Your task to perform on an android device: find photos in the google photos app Image 0: 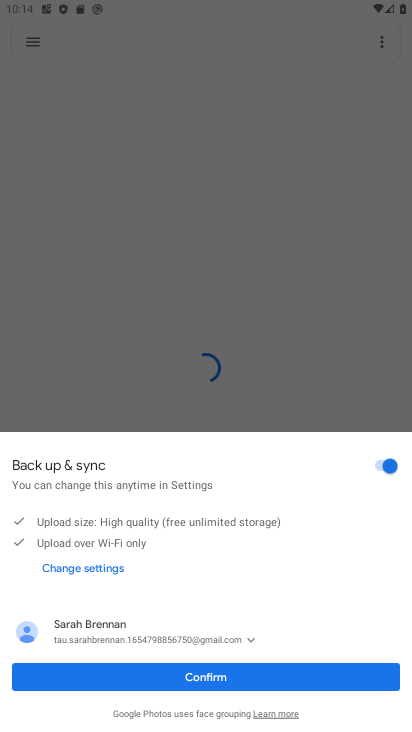
Step 0: click (198, 264)
Your task to perform on an android device: find photos in the google photos app Image 1: 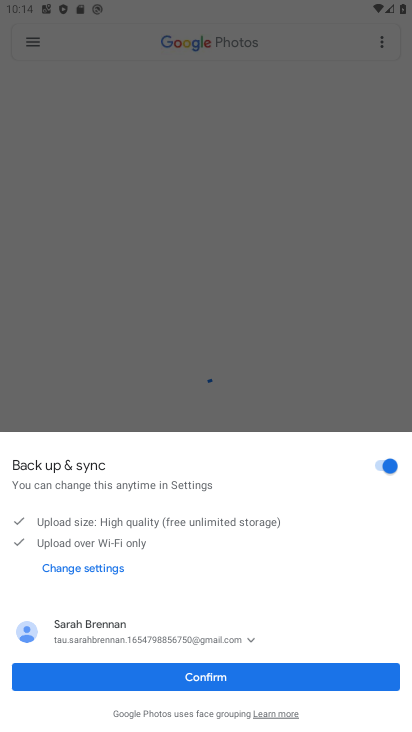
Step 1: click (200, 264)
Your task to perform on an android device: find photos in the google photos app Image 2: 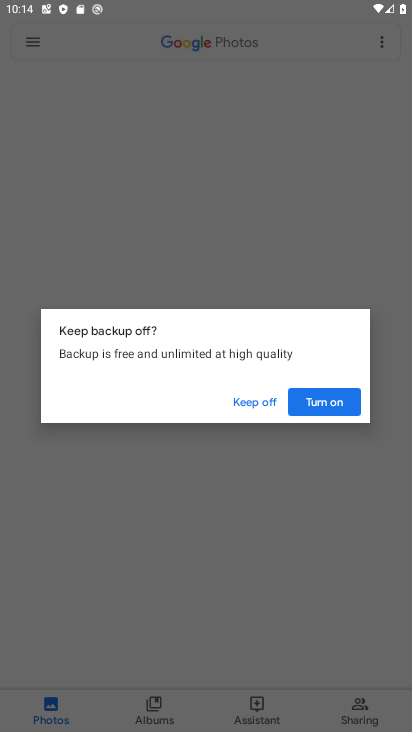
Step 2: click (198, 270)
Your task to perform on an android device: find photos in the google photos app Image 3: 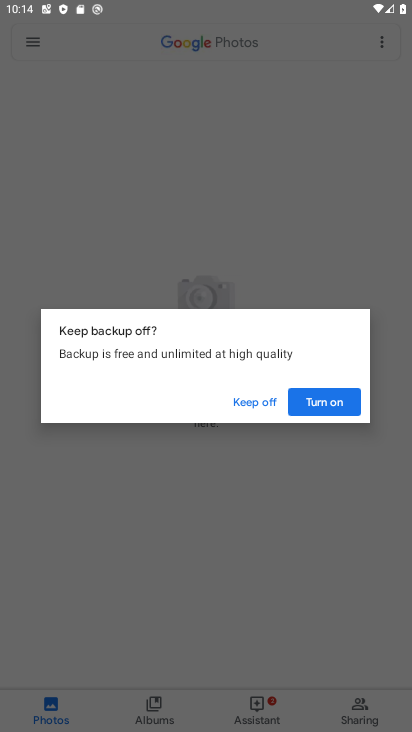
Step 3: click (330, 389)
Your task to perform on an android device: find photos in the google photos app Image 4: 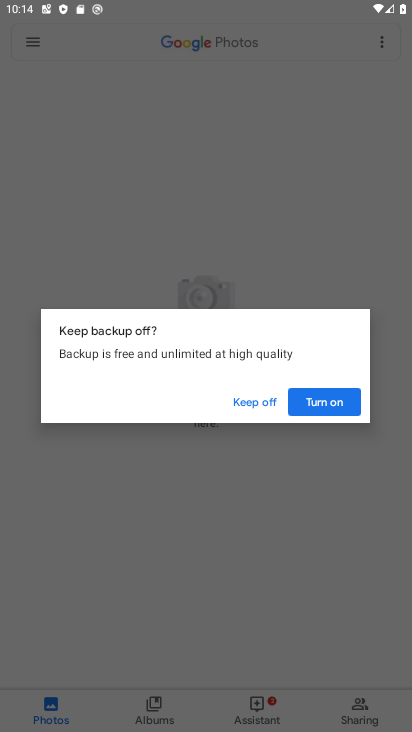
Step 4: press back button
Your task to perform on an android device: find photos in the google photos app Image 5: 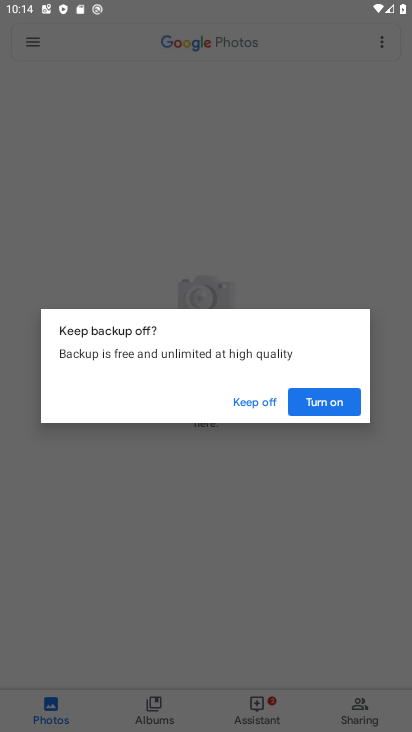
Step 5: drag from (112, 185) to (112, 72)
Your task to perform on an android device: find photos in the google photos app Image 6: 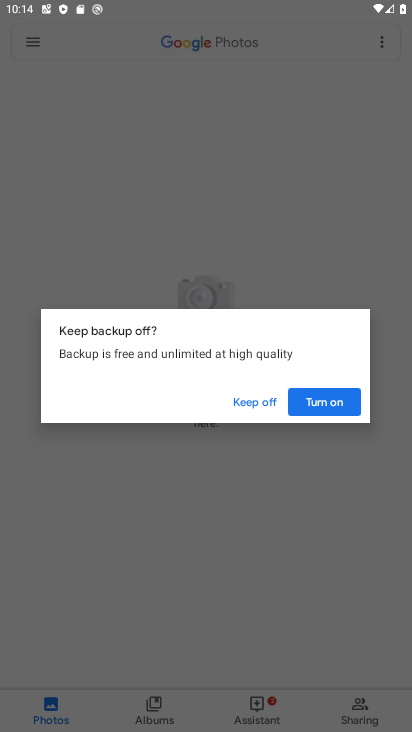
Step 6: click (319, 399)
Your task to perform on an android device: find photos in the google photos app Image 7: 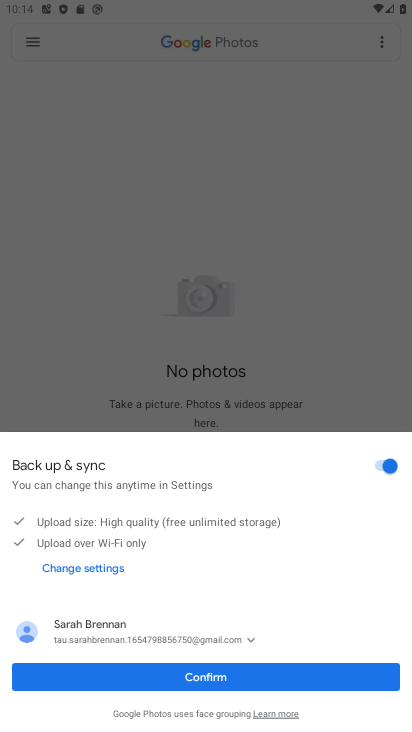
Step 7: drag from (315, 401) to (267, 278)
Your task to perform on an android device: find photos in the google photos app Image 8: 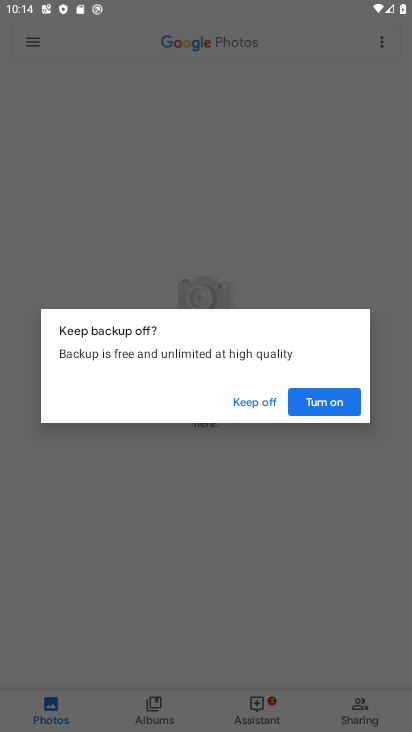
Step 8: click (322, 402)
Your task to perform on an android device: find photos in the google photos app Image 9: 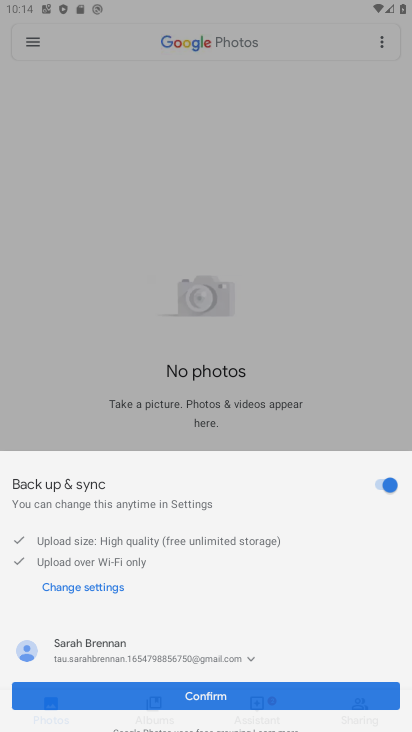
Step 9: click (324, 403)
Your task to perform on an android device: find photos in the google photos app Image 10: 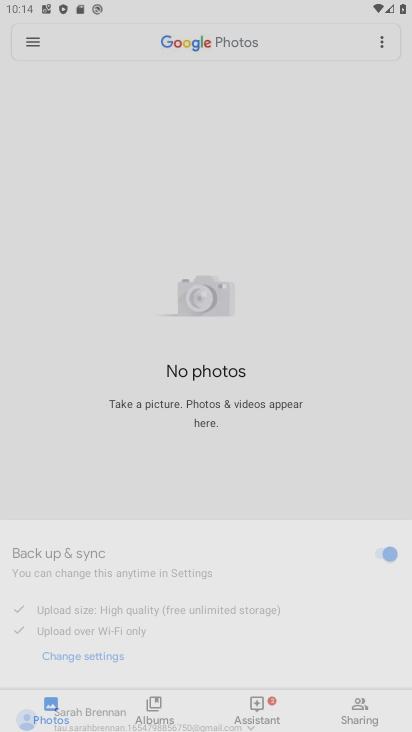
Step 10: click (243, 220)
Your task to perform on an android device: find photos in the google photos app Image 11: 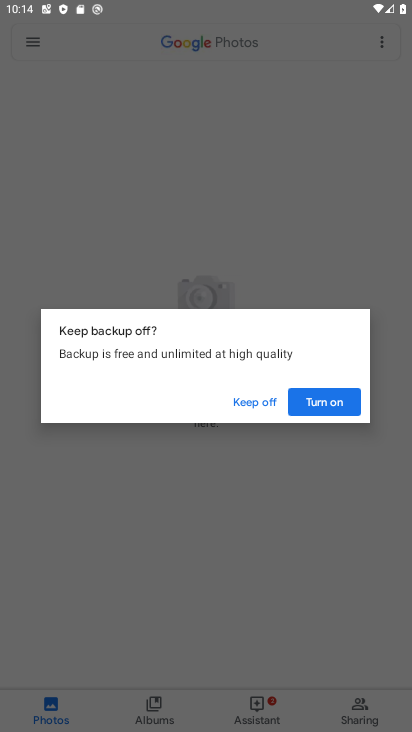
Step 11: click (255, 394)
Your task to perform on an android device: find photos in the google photos app Image 12: 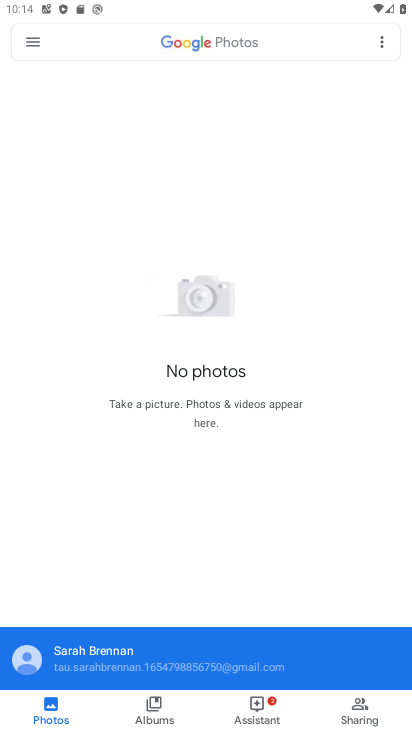
Step 12: drag from (334, 502) to (211, 37)
Your task to perform on an android device: find photos in the google photos app Image 13: 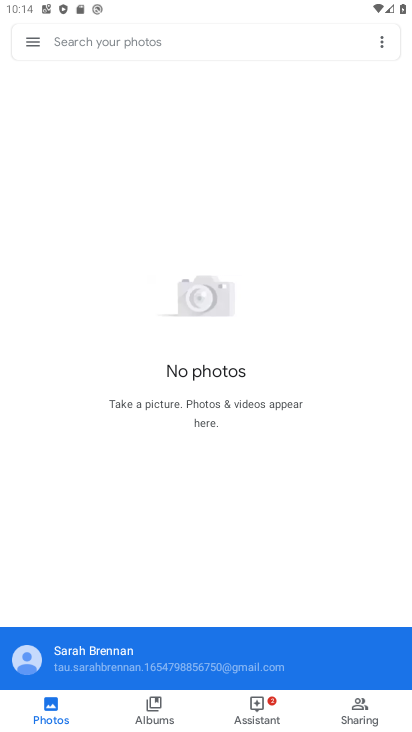
Step 13: drag from (226, 515) to (125, 201)
Your task to perform on an android device: find photos in the google photos app Image 14: 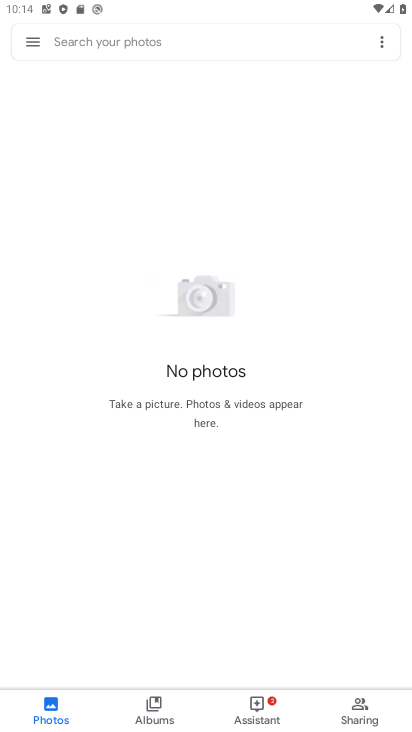
Step 14: drag from (231, 510) to (197, 261)
Your task to perform on an android device: find photos in the google photos app Image 15: 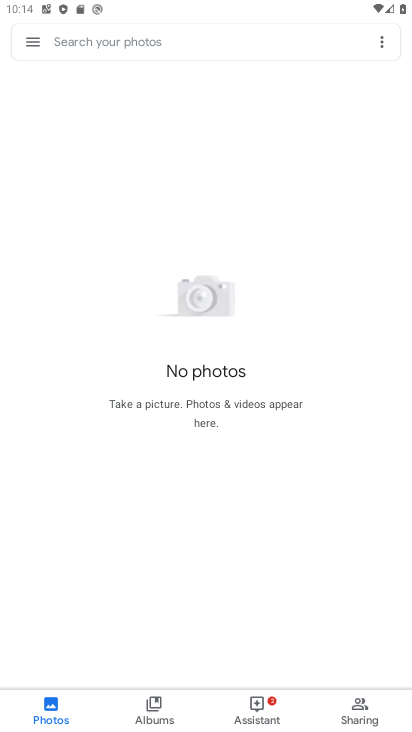
Step 15: click (163, 719)
Your task to perform on an android device: find photos in the google photos app Image 16: 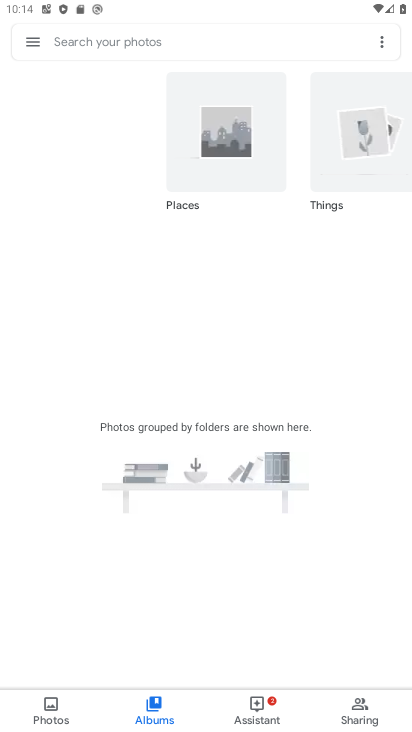
Step 16: task complete